Your task to perform on an android device: Show me some nice wallpapers for my tablet Image 0: 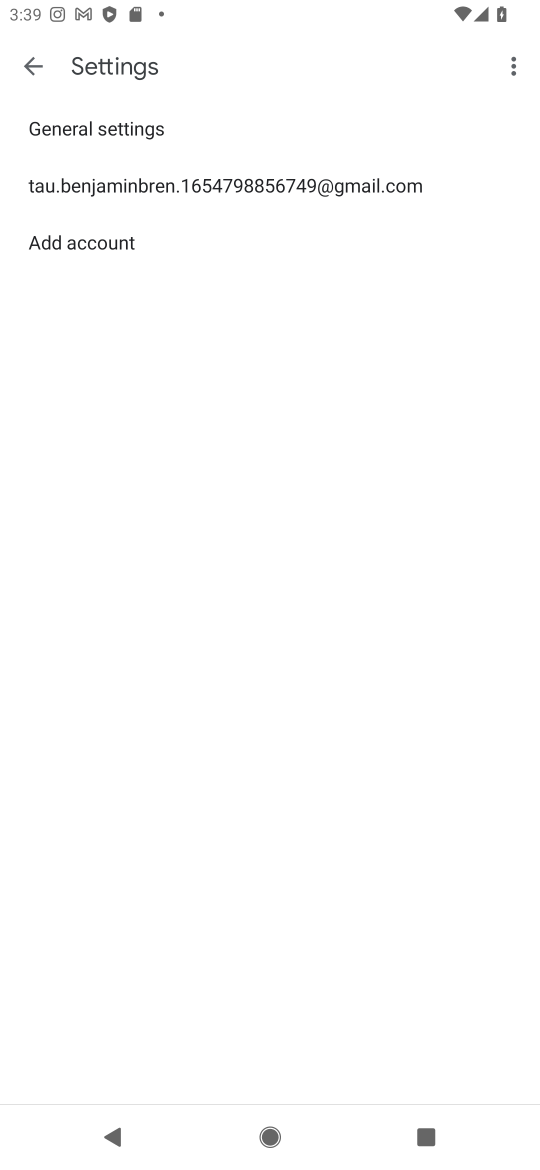
Step 0: press home button
Your task to perform on an android device: Show me some nice wallpapers for my tablet Image 1: 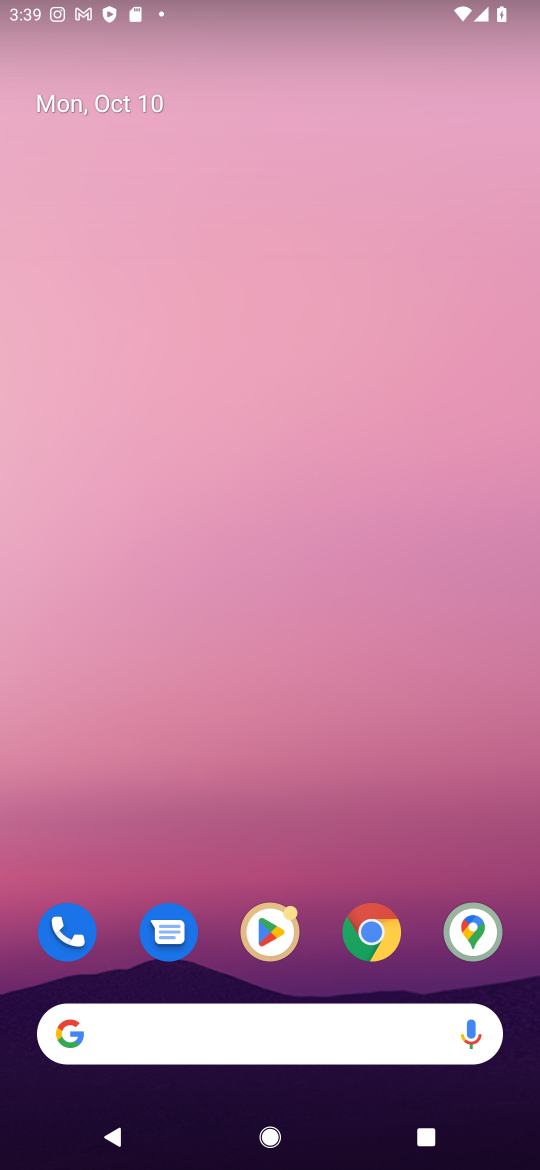
Step 1: click (295, 1043)
Your task to perform on an android device: Show me some nice wallpapers for my tablet Image 2: 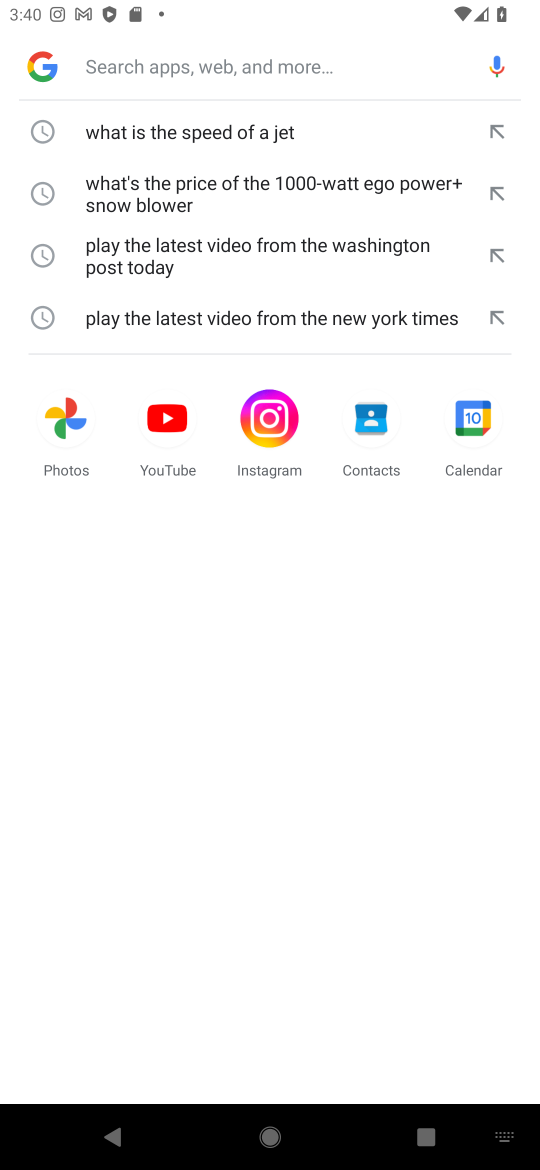
Step 2: press enter
Your task to perform on an android device: Show me some nice wallpapers for my tablet Image 3: 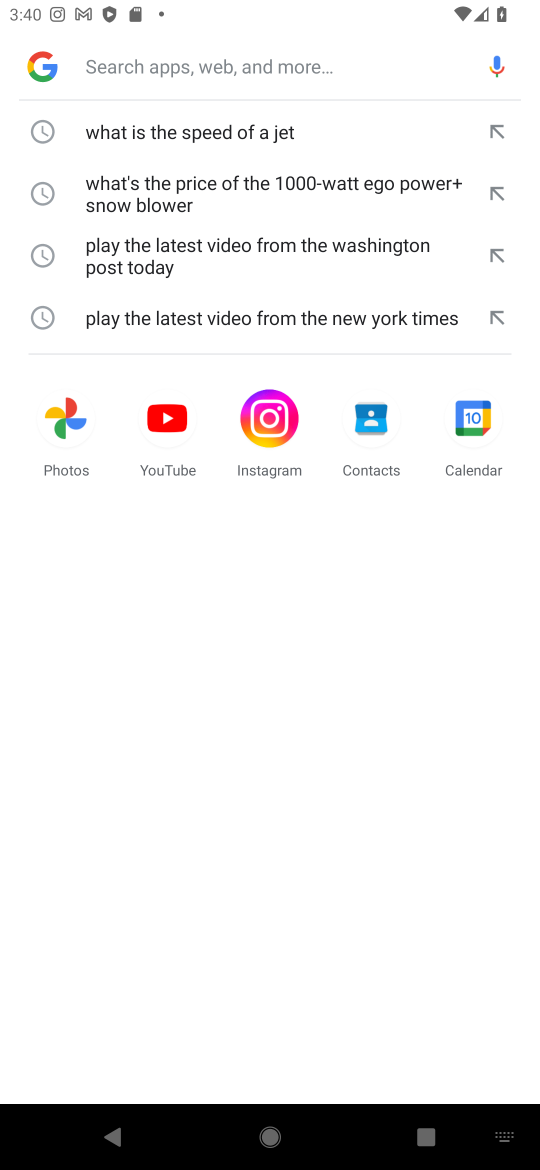
Step 3: type "Show me some nice wallpapers for my tablet"
Your task to perform on an android device: Show me some nice wallpapers for my tablet Image 4: 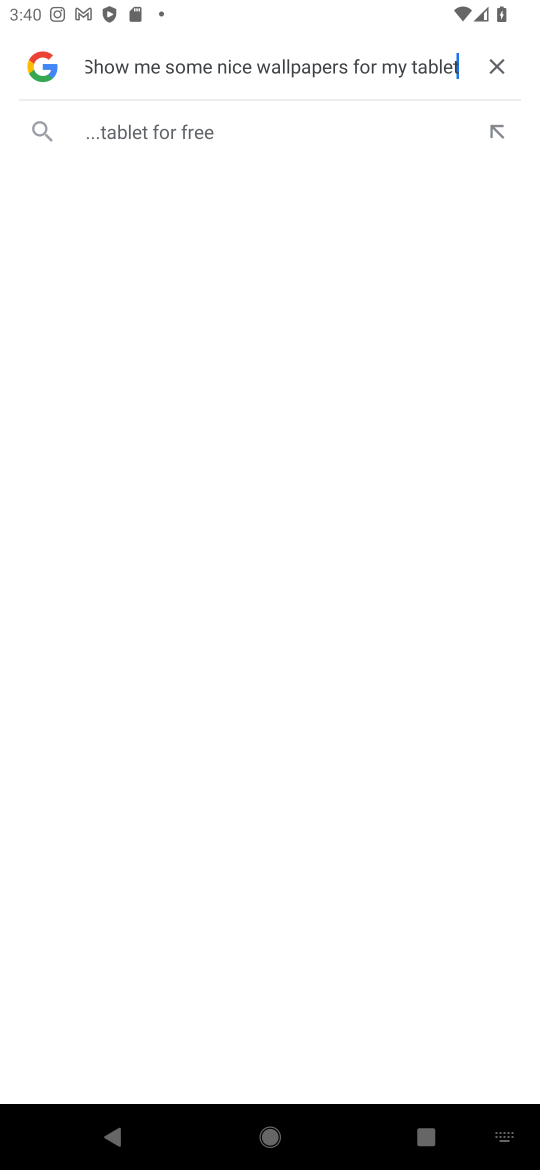
Step 4: press enter
Your task to perform on an android device: Show me some nice wallpapers for my tablet Image 5: 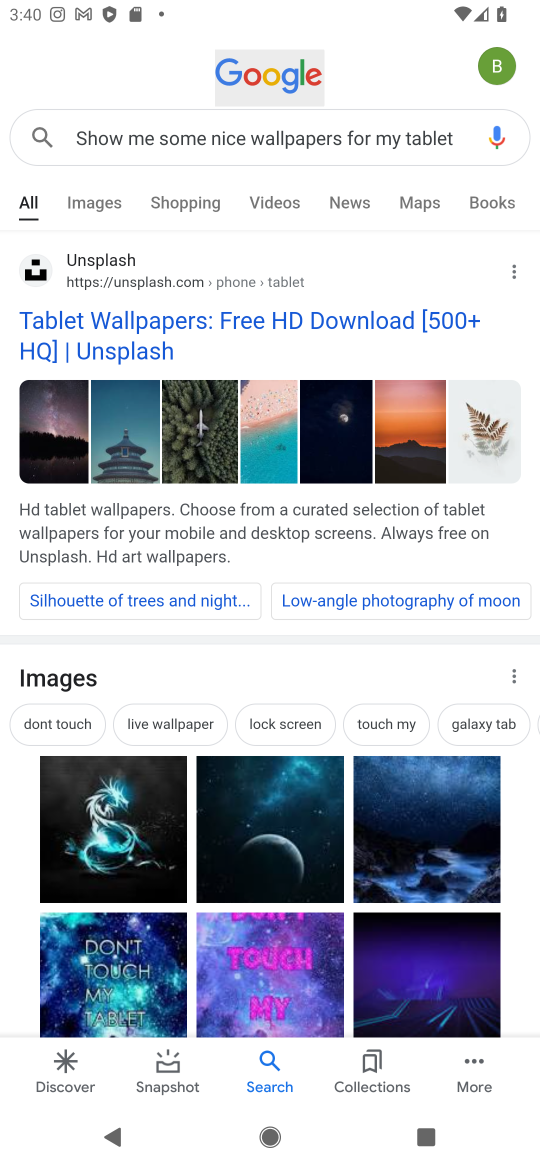
Step 5: click (339, 324)
Your task to perform on an android device: Show me some nice wallpapers for my tablet Image 6: 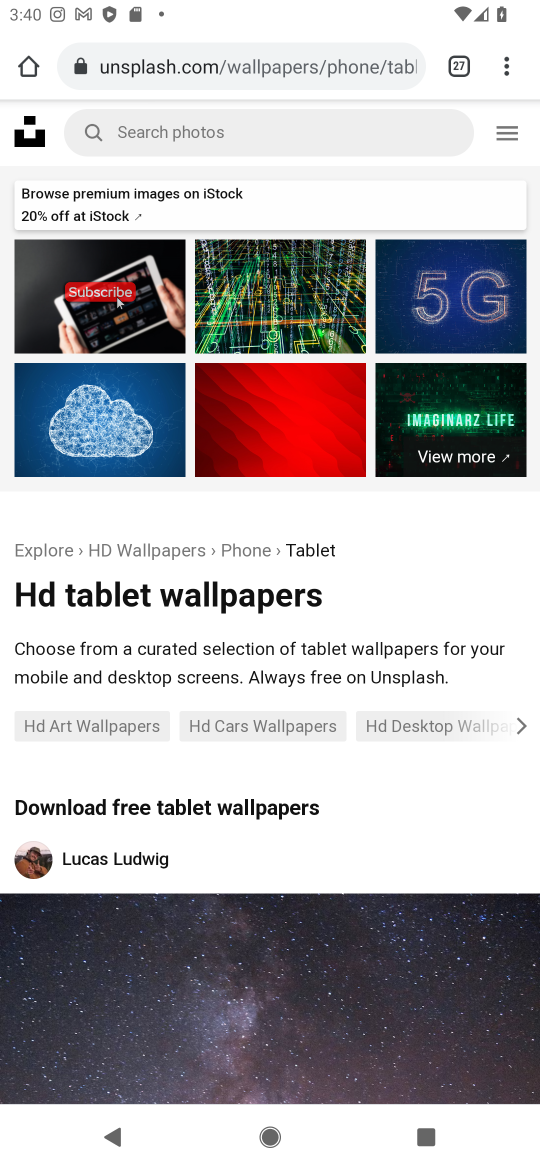
Step 6: task complete